Your task to perform on an android device: Search for razer nari on newegg, select the first entry, add it to the cart, then select checkout. Image 0: 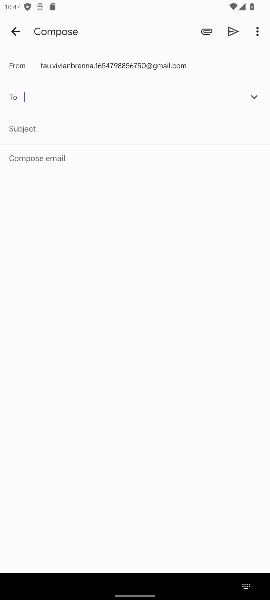
Step 0: press home button
Your task to perform on an android device: Search for razer nari on newegg, select the first entry, add it to the cart, then select checkout. Image 1: 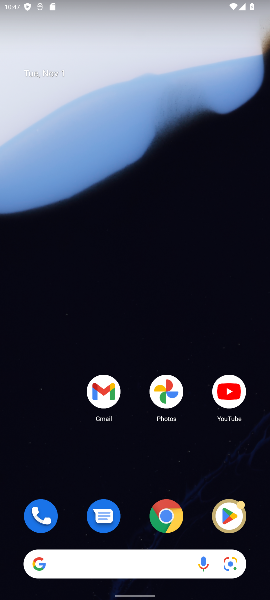
Step 1: click (165, 509)
Your task to perform on an android device: Search for razer nari on newegg, select the first entry, add it to the cart, then select checkout. Image 2: 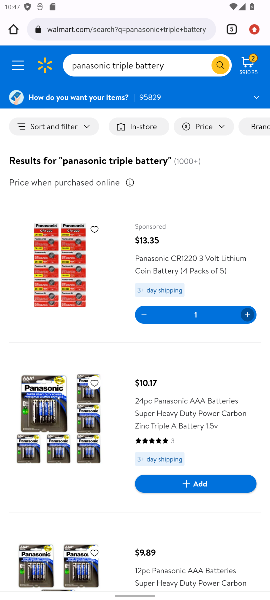
Step 2: click (234, 34)
Your task to perform on an android device: Search for razer nari on newegg, select the first entry, add it to the cart, then select checkout. Image 3: 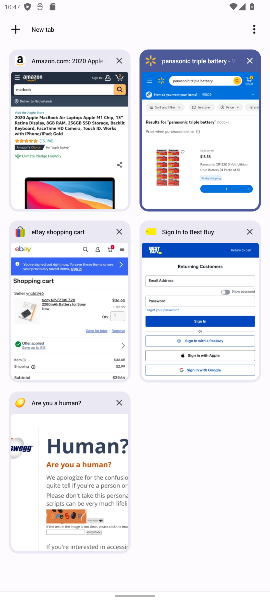
Step 3: click (12, 26)
Your task to perform on an android device: Search for razer nari on newegg, select the first entry, add it to the cart, then select checkout. Image 4: 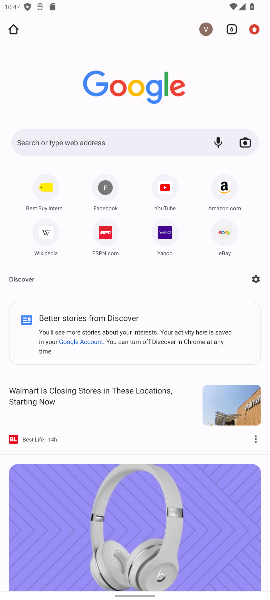
Step 4: click (33, 138)
Your task to perform on an android device: Search for razer nari on newegg, select the first entry, add it to the cart, then select checkout. Image 5: 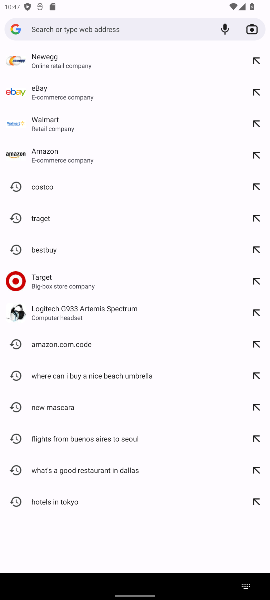
Step 5: click (75, 61)
Your task to perform on an android device: Search for razer nari on newegg, select the first entry, add it to the cart, then select checkout. Image 6: 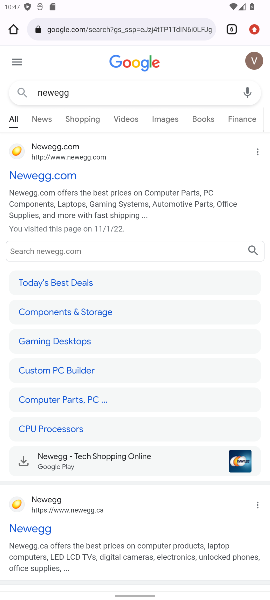
Step 6: click (95, 250)
Your task to perform on an android device: Search for razer nari on newegg, select the first entry, add it to the cart, then select checkout. Image 7: 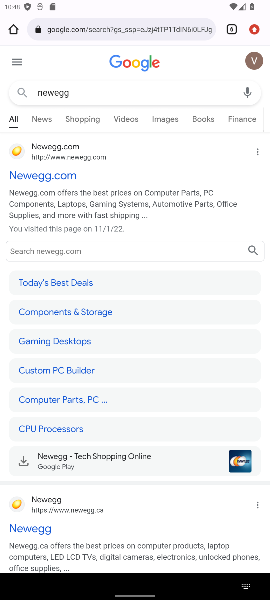
Step 7: type "razer nari "
Your task to perform on an android device: Search for razer nari on newegg, select the first entry, add it to the cart, then select checkout. Image 8: 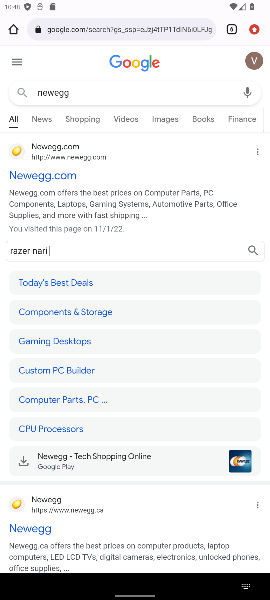
Step 8: click (252, 252)
Your task to perform on an android device: Search for razer nari on newegg, select the first entry, add it to the cart, then select checkout. Image 9: 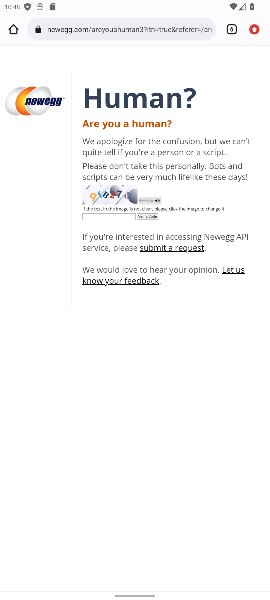
Step 9: task complete